Your task to perform on an android device: turn on location history Image 0: 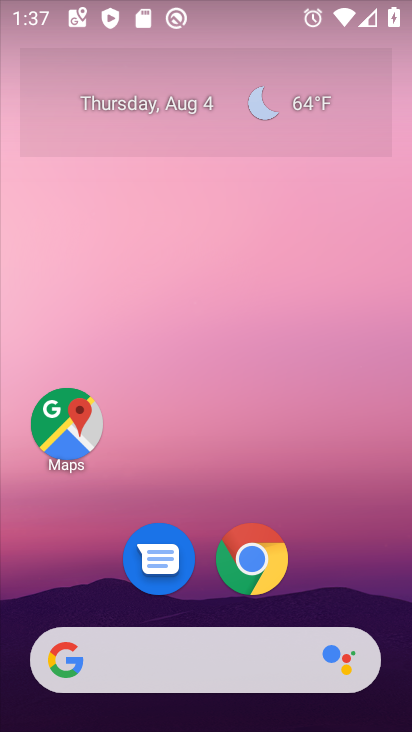
Step 0: drag from (150, 668) to (159, 167)
Your task to perform on an android device: turn on location history Image 1: 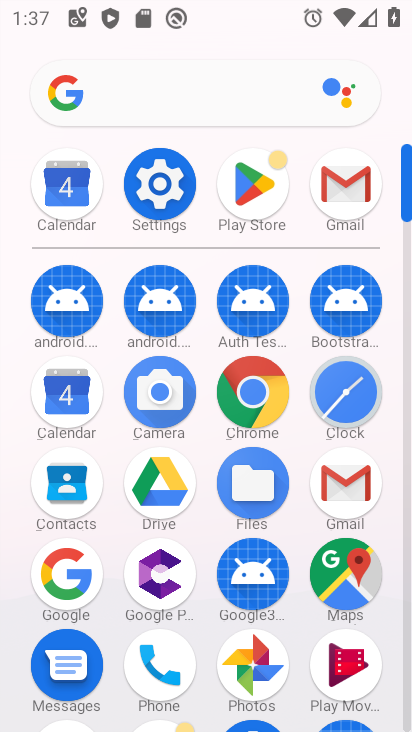
Step 1: click (160, 186)
Your task to perform on an android device: turn on location history Image 2: 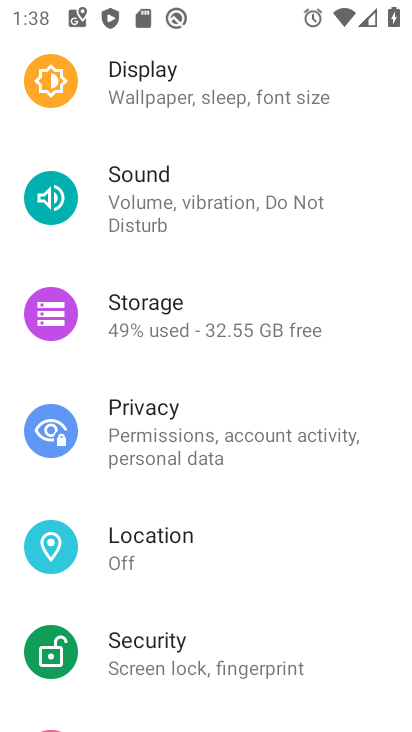
Step 2: click (188, 543)
Your task to perform on an android device: turn on location history Image 3: 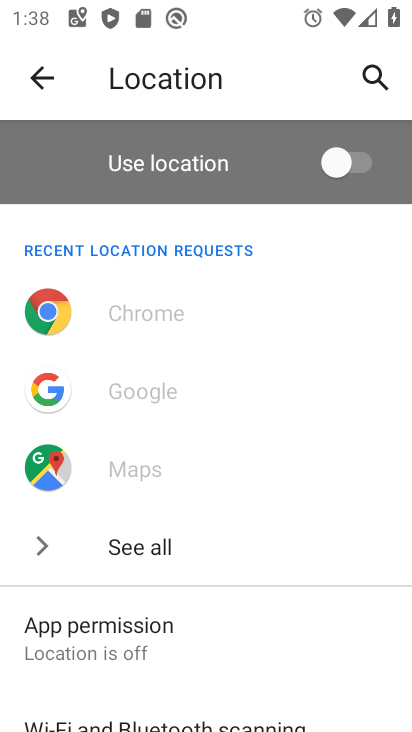
Step 3: drag from (192, 617) to (285, 406)
Your task to perform on an android device: turn on location history Image 4: 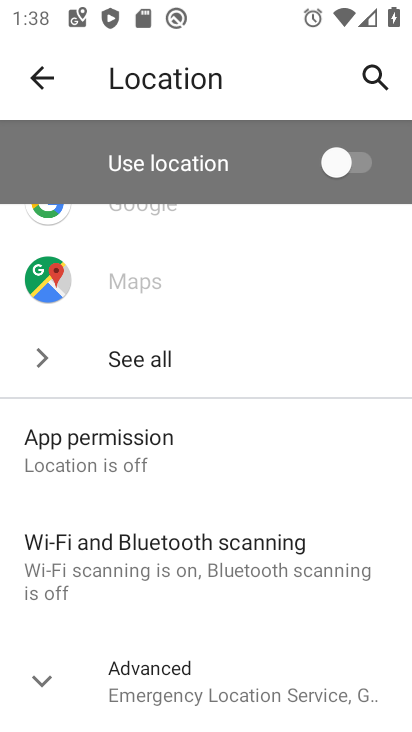
Step 4: drag from (208, 633) to (256, 540)
Your task to perform on an android device: turn on location history Image 5: 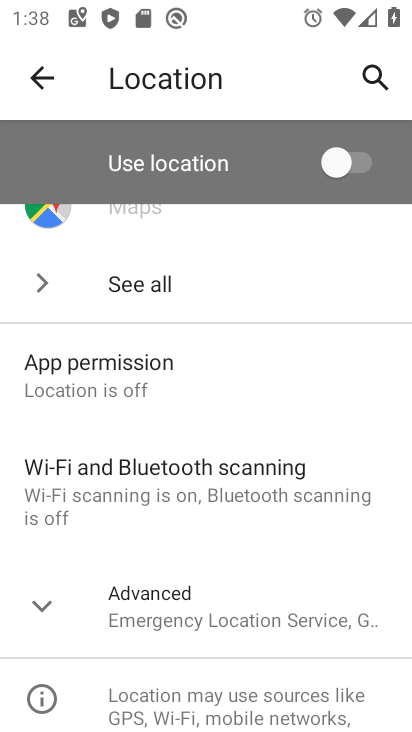
Step 5: click (237, 623)
Your task to perform on an android device: turn on location history Image 6: 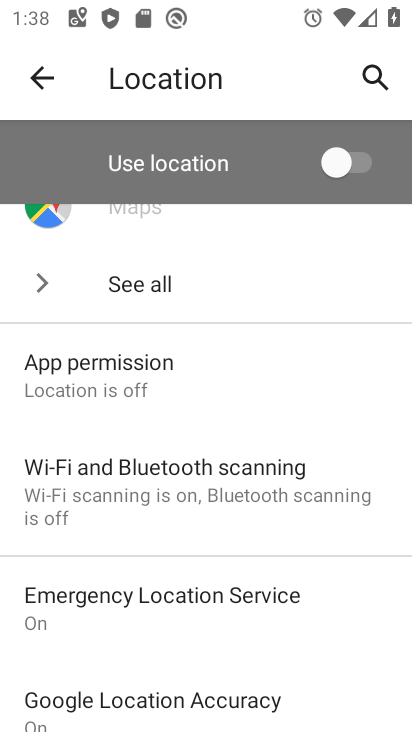
Step 6: drag from (206, 580) to (231, 458)
Your task to perform on an android device: turn on location history Image 7: 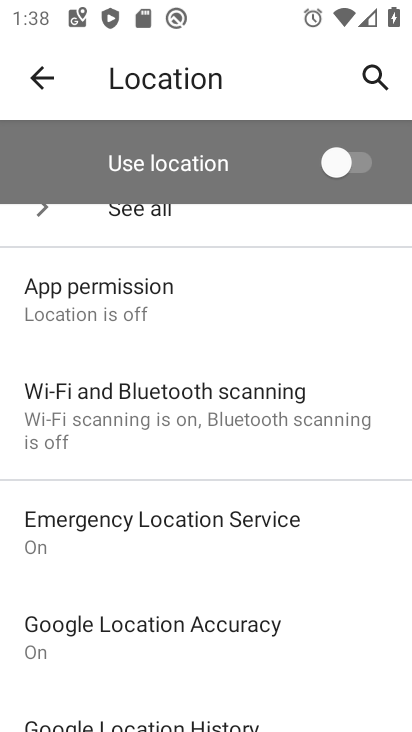
Step 7: drag from (219, 608) to (250, 444)
Your task to perform on an android device: turn on location history Image 8: 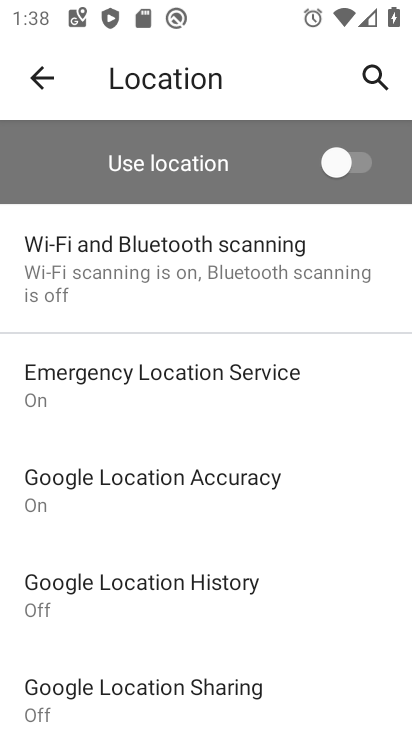
Step 8: click (209, 593)
Your task to perform on an android device: turn on location history Image 9: 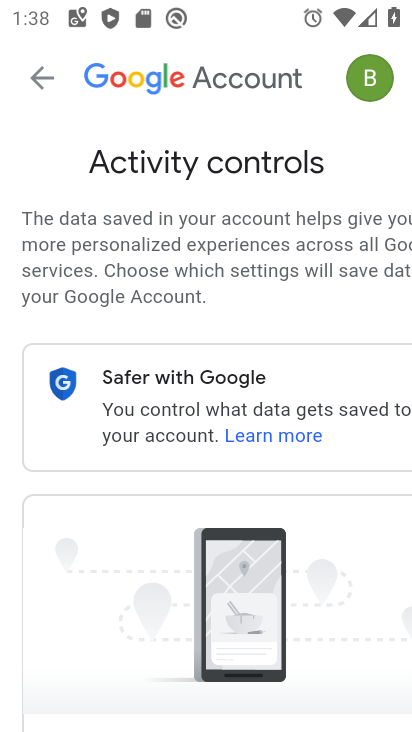
Step 9: drag from (165, 665) to (262, 440)
Your task to perform on an android device: turn on location history Image 10: 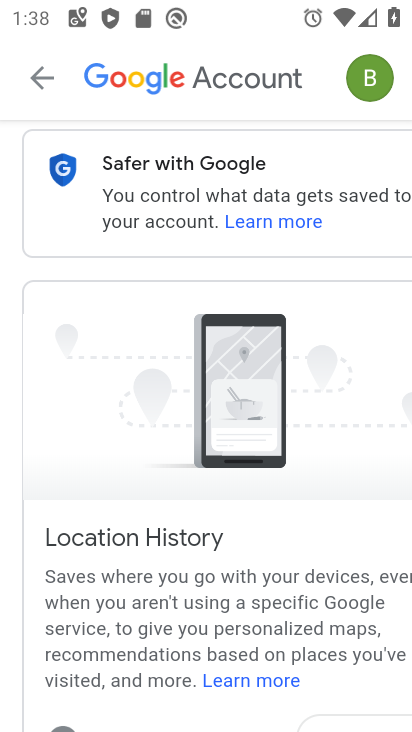
Step 10: drag from (189, 636) to (273, 419)
Your task to perform on an android device: turn on location history Image 11: 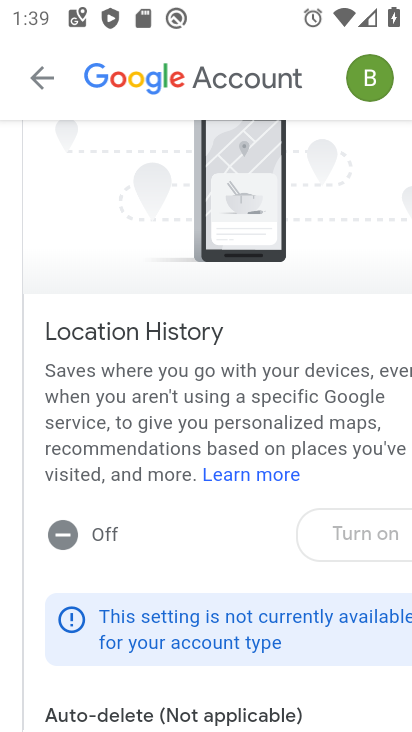
Step 11: drag from (227, 702) to (322, 439)
Your task to perform on an android device: turn on location history Image 12: 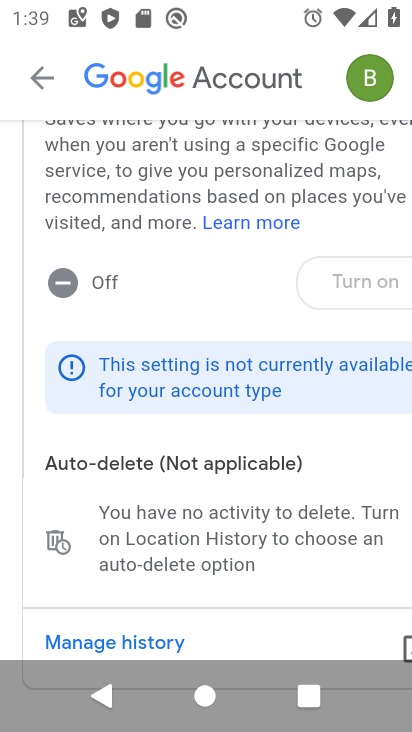
Step 12: drag from (175, 605) to (274, 368)
Your task to perform on an android device: turn on location history Image 13: 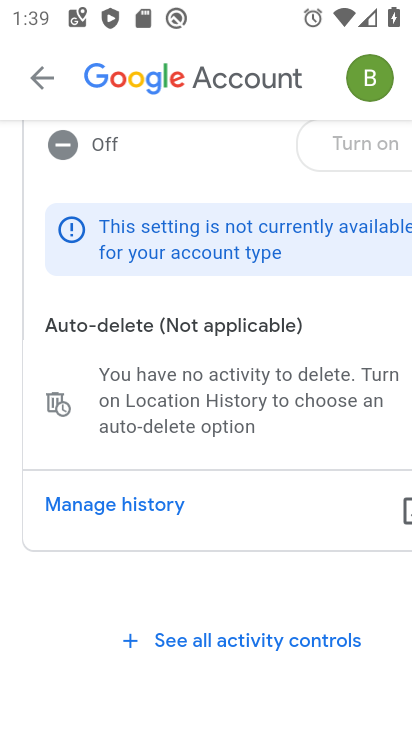
Step 13: click (227, 635)
Your task to perform on an android device: turn on location history Image 14: 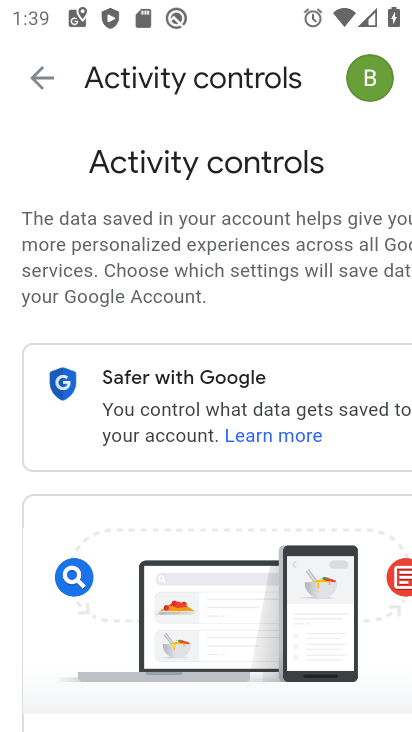
Step 14: task complete